Your task to perform on an android device: stop showing notifications on the lock screen Image 0: 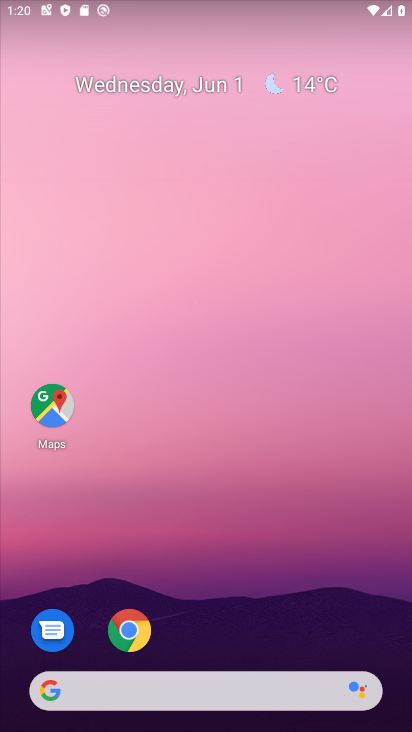
Step 0: drag from (217, 651) to (256, 2)
Your task to perform on an android device: stop showing notifications on the lock screen Image 1: 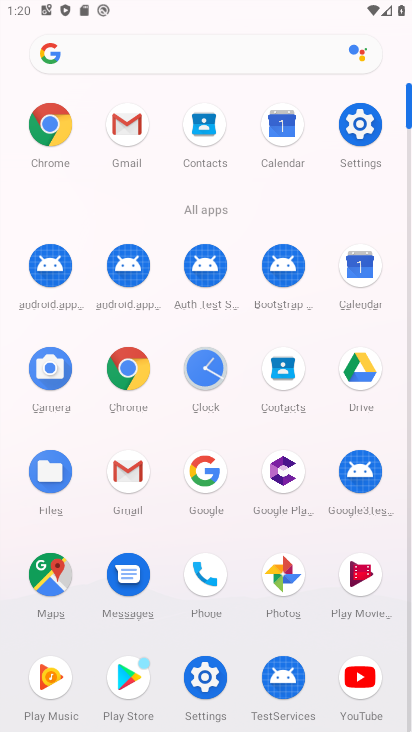
Step 1: click (357, 116)
Your task to perform on an android device: stop showing notifications on the lock screen Image 2: 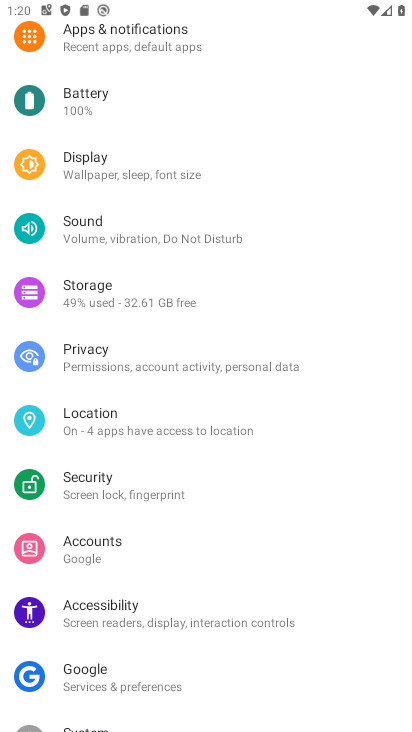
Step 2: click (149, 36)
Your task to perform on an android device: stop showing notifications on the lock screen Image 3: 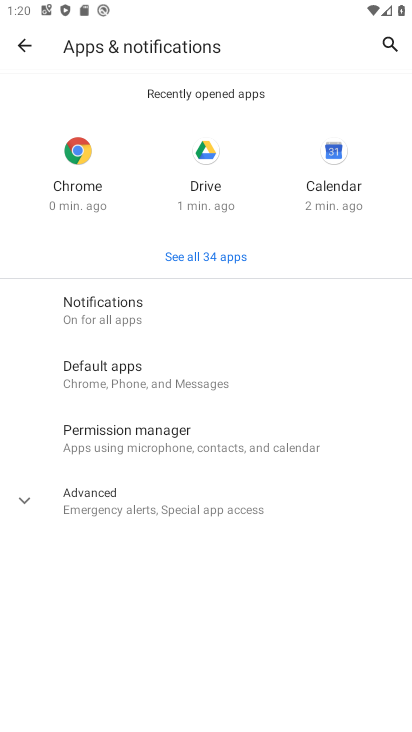
Step 3: click (150, 306)
Your task to perform on an android device: stop showing notifications on the lock screen Image 4: 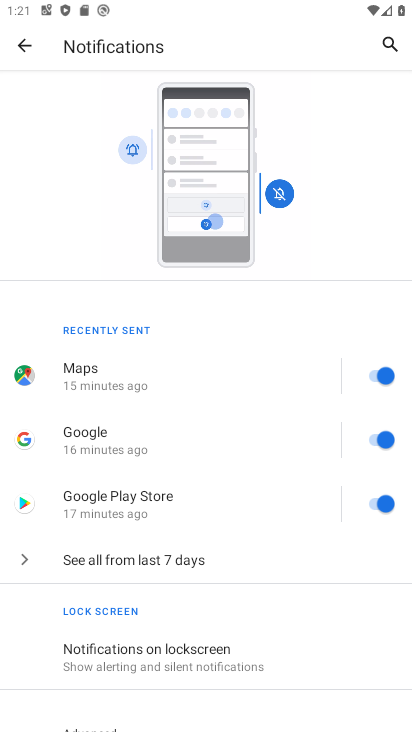
Step 4: click (252, 654)
Your task to perform on an android device: stop showing notifications on the lock screen Image 5: 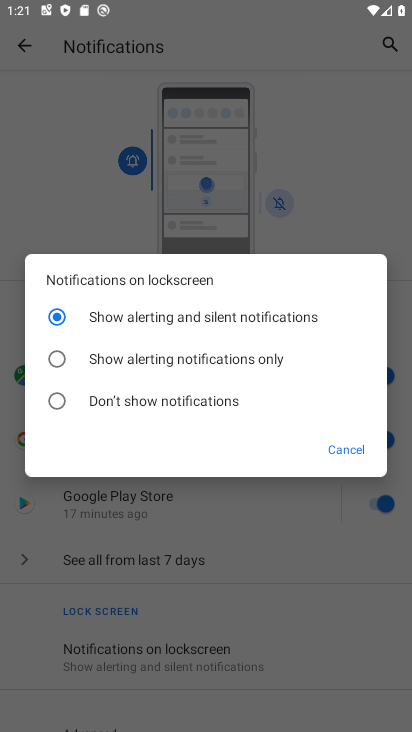
Step 5: click (54, 398)
Your task to perform on an android device: stop showing notifications on the lock screen Image 6: 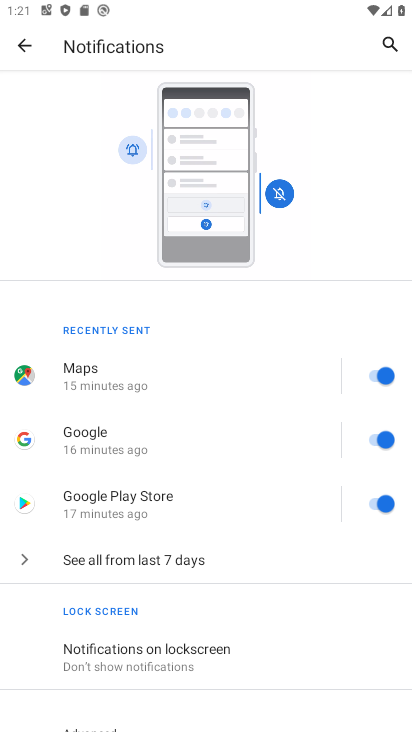
Step 6: task complete